Your task to perform on an android device: Open Google Maps Image 0: 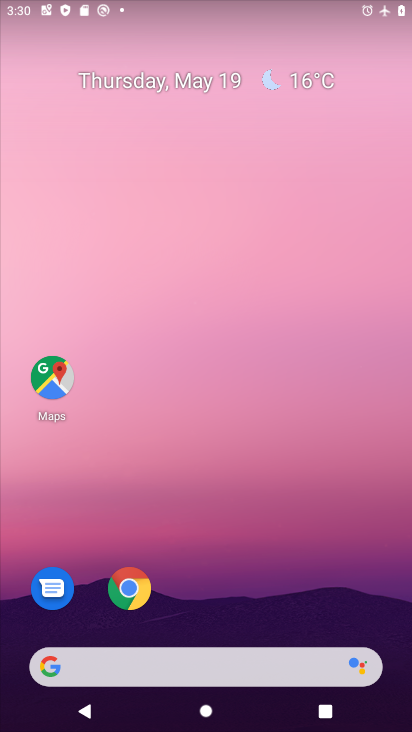
Step 0: drag from (281, 589) to (261, 126)
Your task to perform on an android device: Open Google Maps Image 1: 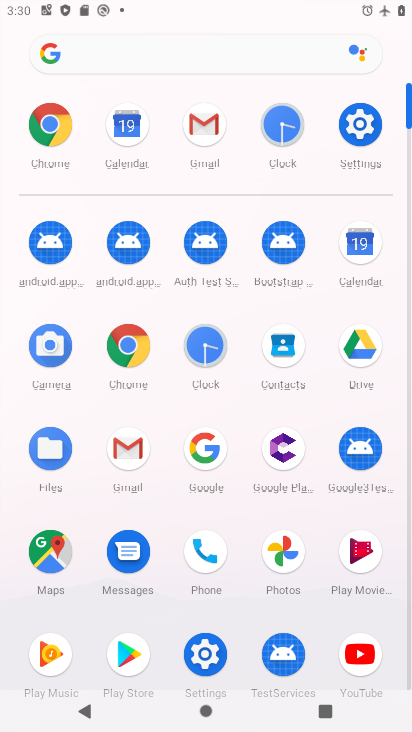
Step 1: click (55, 567)
Your task to perform on an android device: Open Google Maps Image 2: 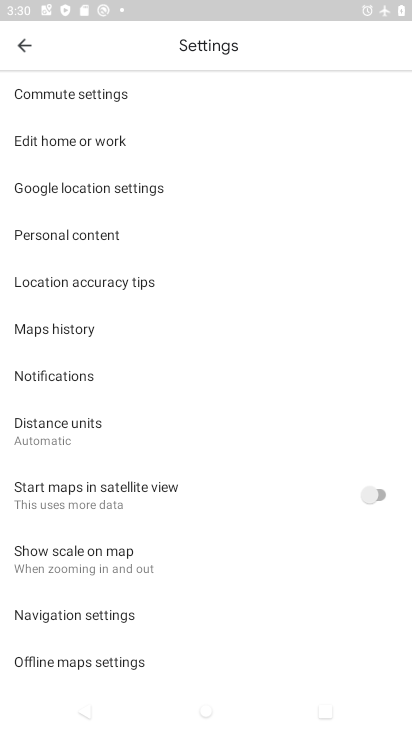
Step 2: press home button
Your task to perform on an android device: Open Google Maps Image 3: 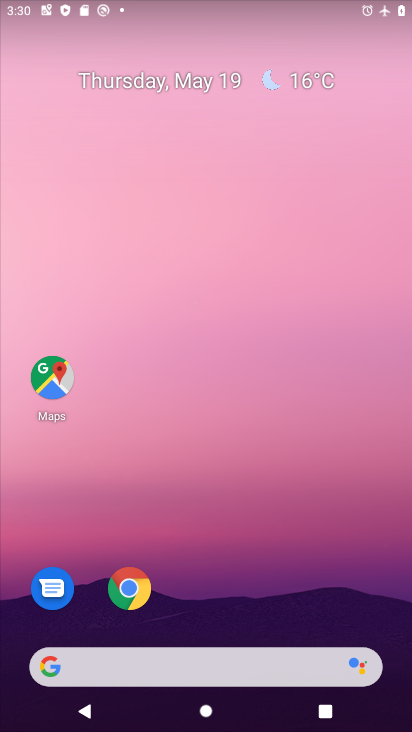
Step 3: click (50, 369)
Your task to perform on an android device: Open Google Maps Image 4: 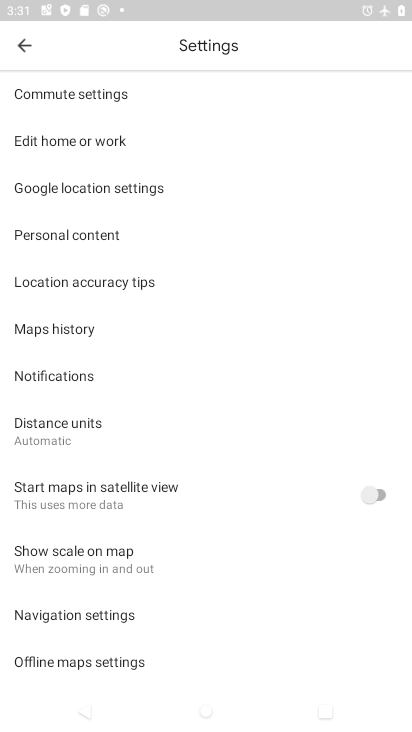
Step 4: task complete